Your task to perform on an android device: open a bookmark in the chrome app Image 0: 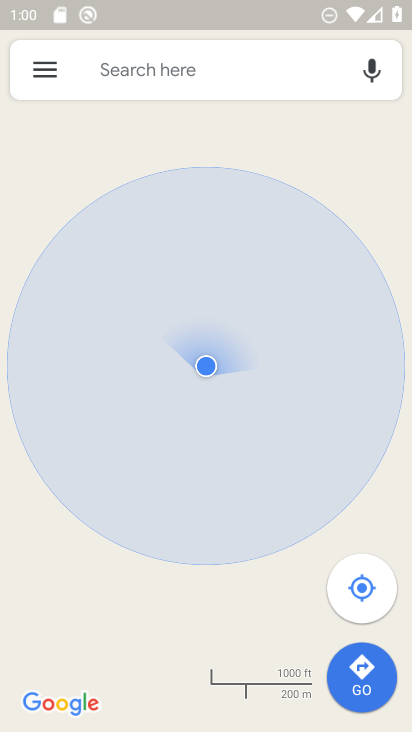
Step 0: press back button
Your task to perform on an android device: open a bookmark in the chrome app Image 1: 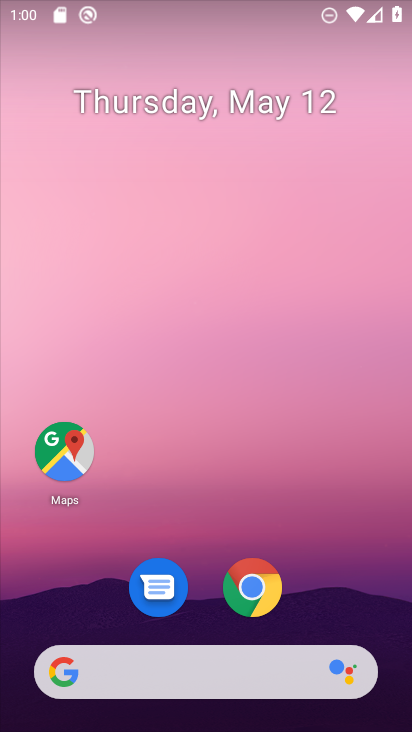
Step 1: click (254, 590)
Your task to perform on an android device: open a bookmark in the chrome app Image 2: 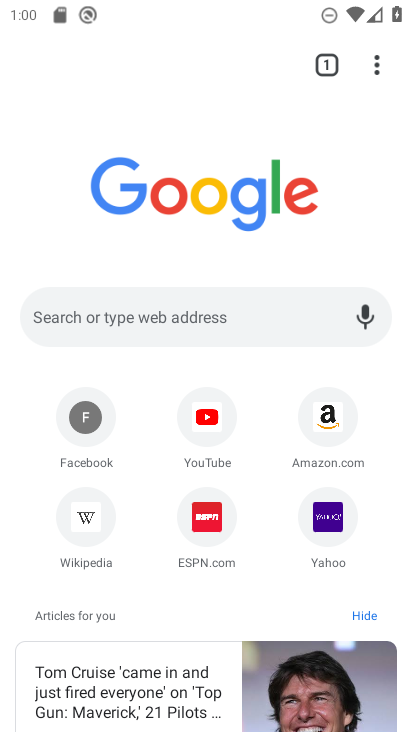
Step 2: click (377, 68)
Your task to perform on an android device: open a bookmark in the chrome app Image 3: 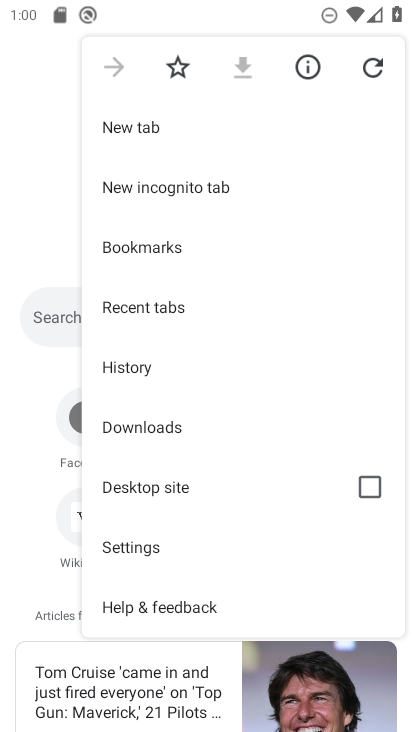
Step 3: click (174, 246)
Your task to perform on an android device: open a bookmark in the chrome app Image 4: 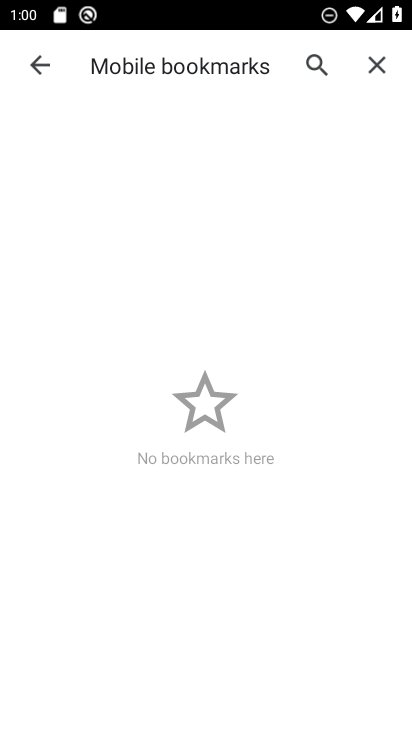
Step 4: task complete